Your task to perform on an android device: open the mobile data screen to see how much data has been used Image 0: 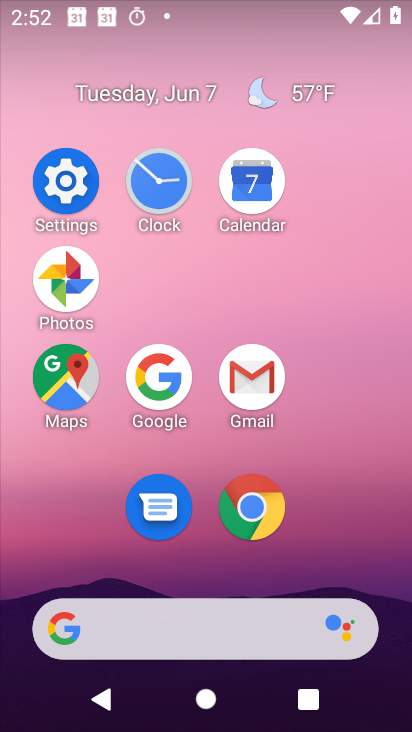
Step 0: press home button
Your task to perform on an android device: open the mobile data screen to see how much data has been used Image 1: 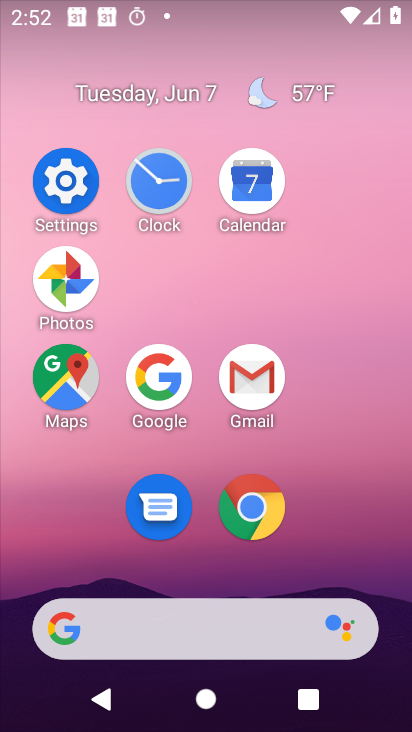
Step 1: click (53, 205)
Your task to perform on an android device: open the mobile data screen to see how much data has been used Image 2: 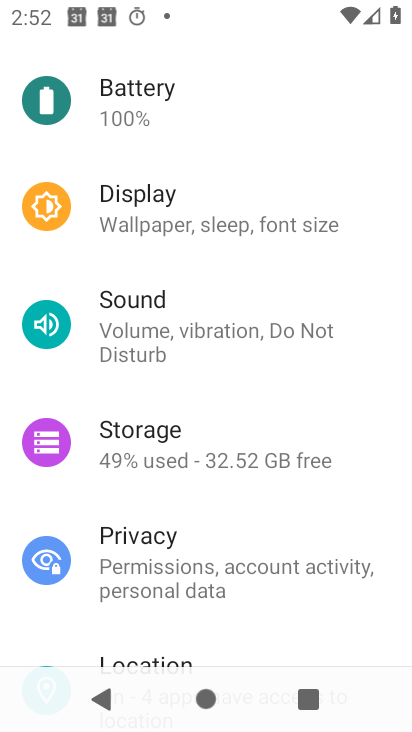
Step 2: drag from (314, 148) to (331, 567)
Your task to perform on an android device: open the mobile data screen to see how much data has been used Image 3: 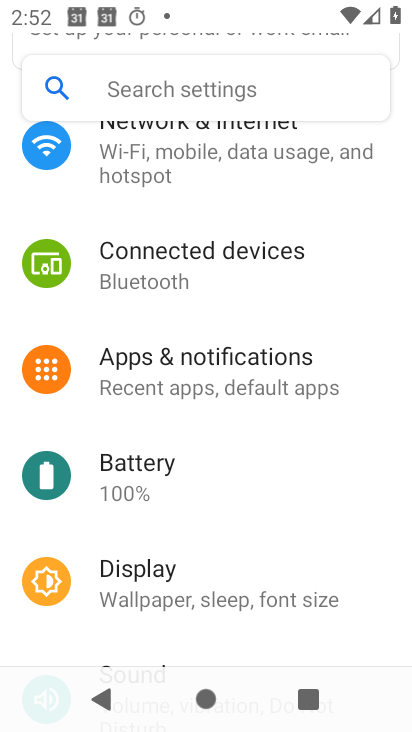
Step 3: click (279, 156)
Your task to perform on an android device: open the mobile data screen to see how much data has been used Image 4: 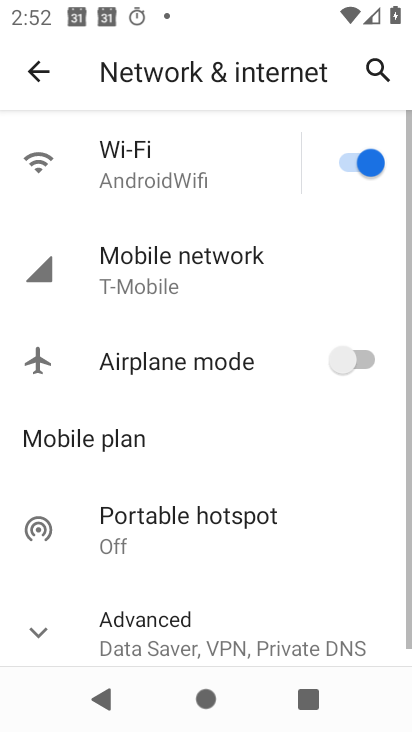
Step 4: click (177, 247)
Your task to perform on an android device: open the mobile data screen to see how much data has been used Image 5: 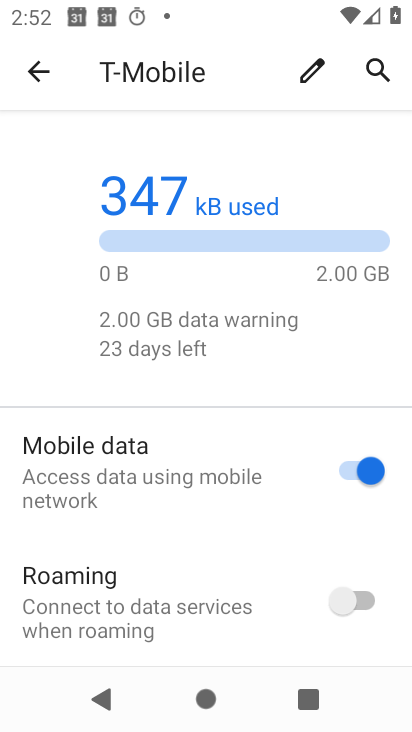
Step 5: task complete